Your task to perform on an android device: open device folders in google photos Image 0: 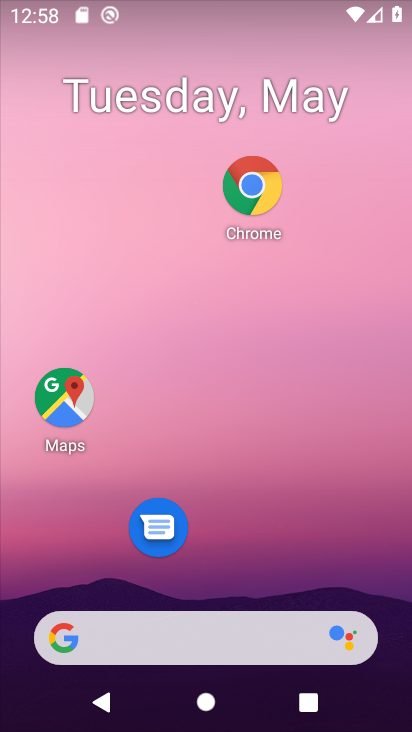
Step 0: drag from (265, 473) to (119, 107)
Your task to perform on an android device: open device folders in google photos Image 1: 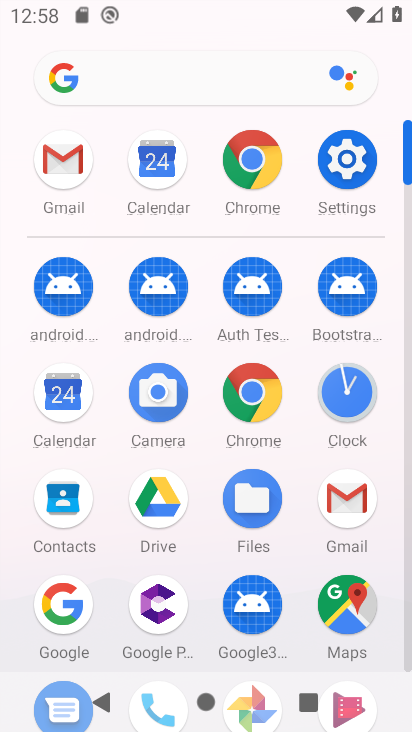
Step 1: drag from (204, 562) to (155, 127)
Your task to perform on an android device: open device folders in google photos Image 2: 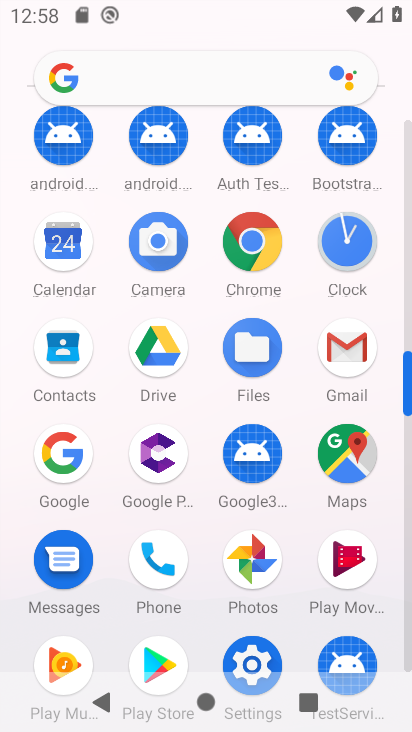
Step 2: click (258, 546)
Your task to perform on an android device: open device folders in google photos Image 3: 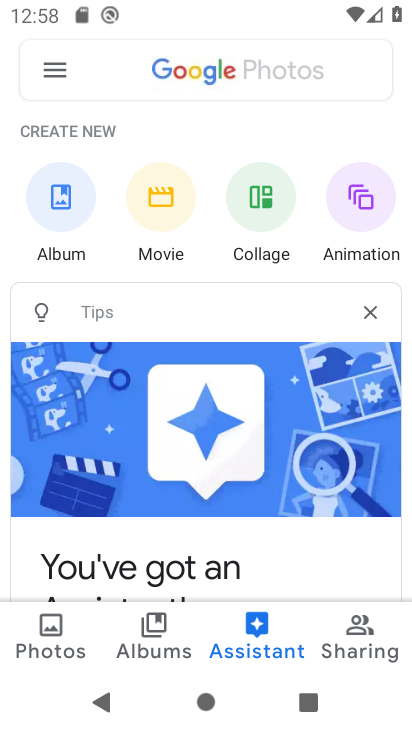
Step 3: click (53, 63)
Your task to perform on an android device: open device folders in google photos Image 4: 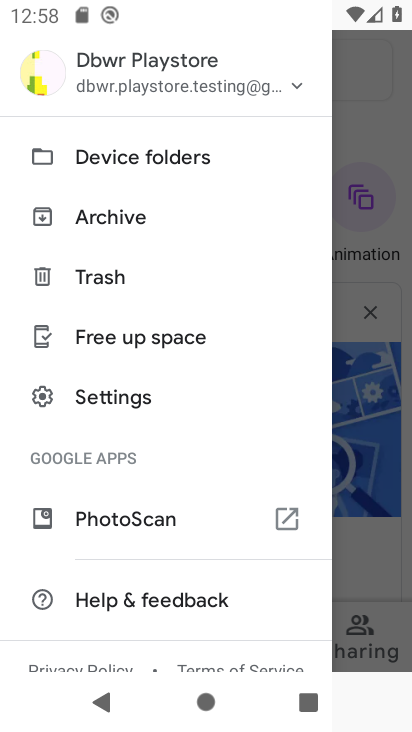
Step 4: click (100, 153)
Your task to perform on an android device: open device folders in google photos Image 5: 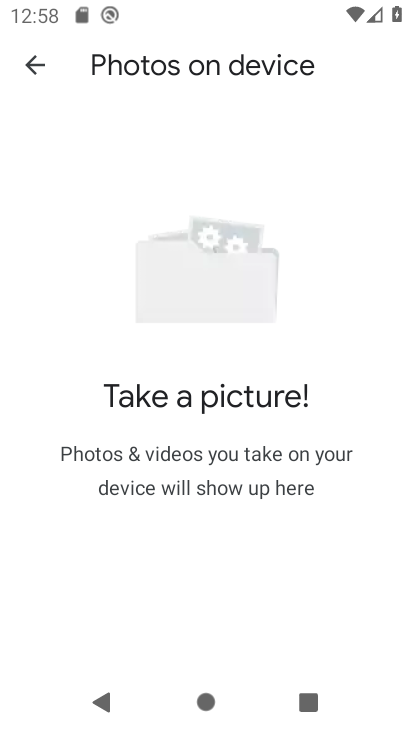
Step 5: task complete